Your task to perform on an android device: check battery use Image 0: 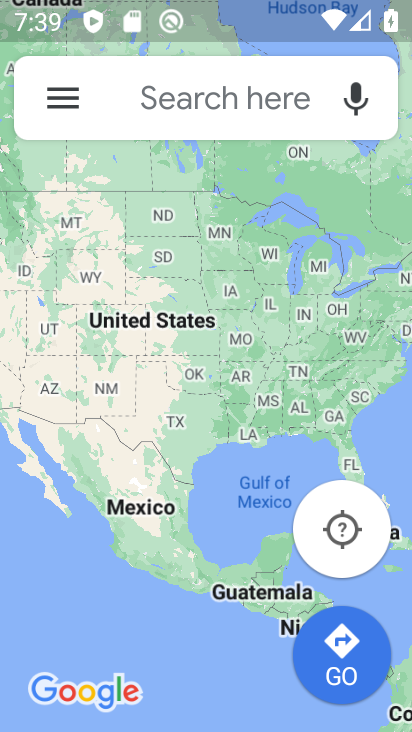
Step 0: press home button
Your task to perform on an android device: check battery use Image 1: 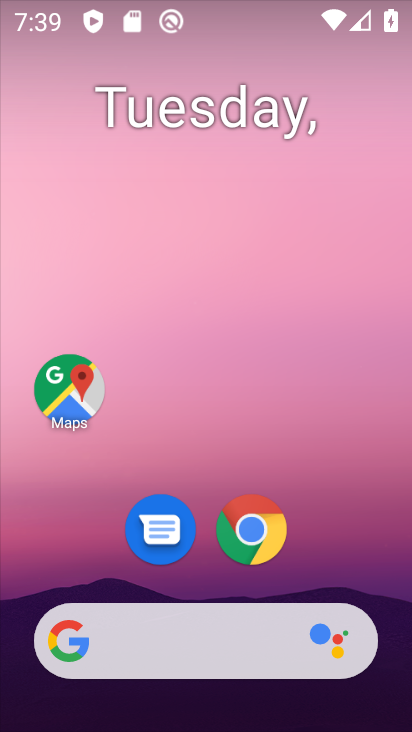
Step 1: drag from (250, 580) to (350, 18)
Your task to perform on an android device: check battery use Image 2: 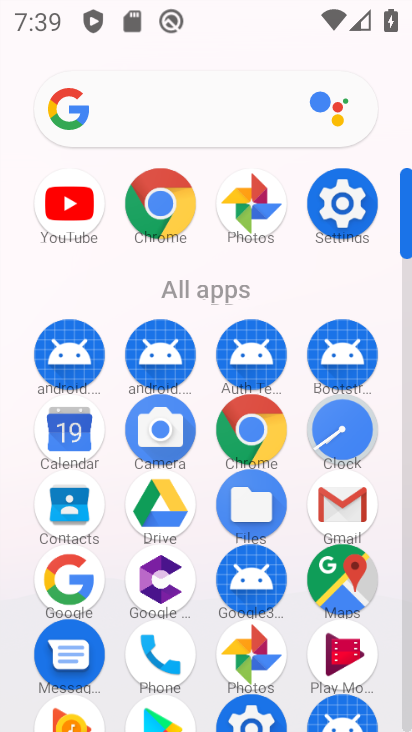
Step 2: click (345, 203)
Your task to perform on an android device: check battery use Image 3: 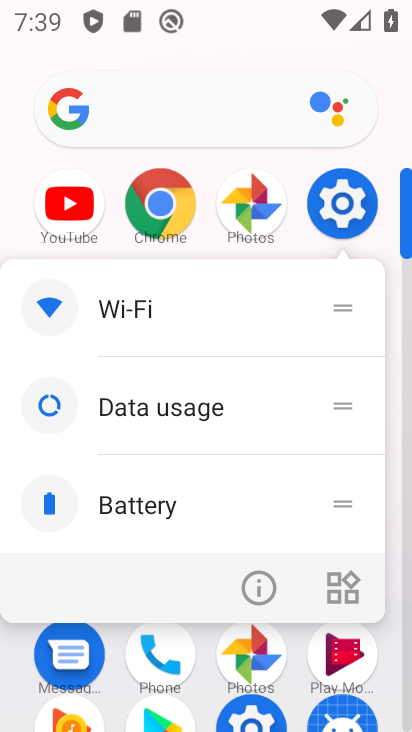
Step 3: click (354, 202)
Your task to perform on an android device: check battery use Image 4: 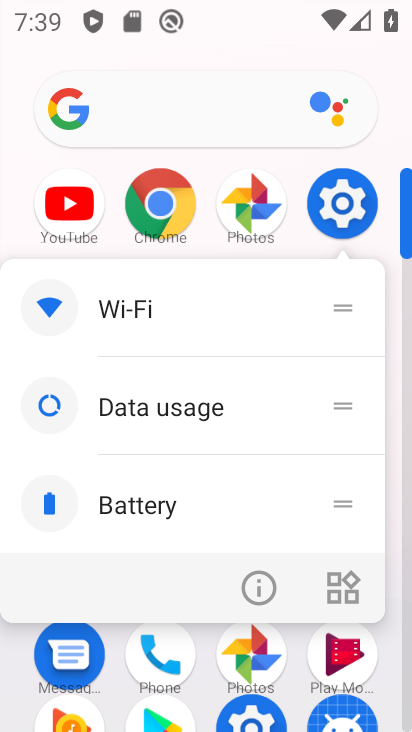
Step 4: click (345, 208)
Your task to perform on an android device: check battery use Image 5: 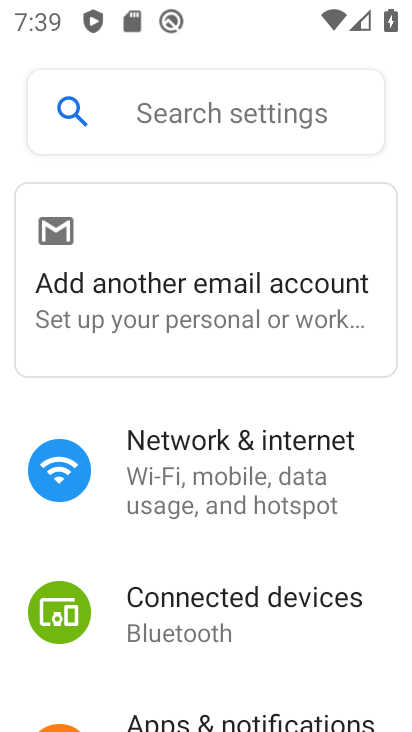
Step 5: drag from (223, 623) to (252, 243)
Your task to perform on an android device: check battery use Image 6: 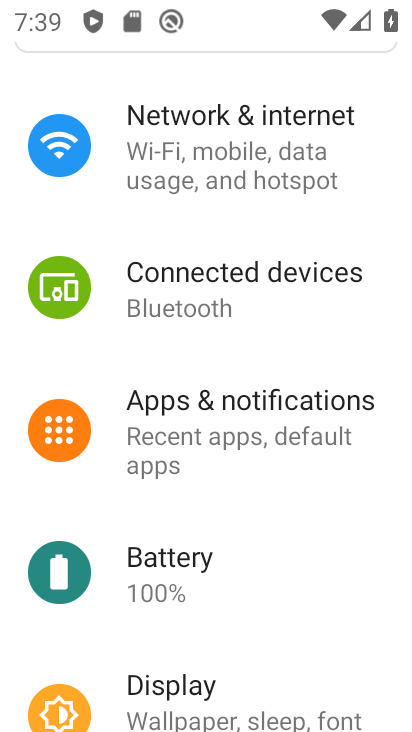
Step 6: click (192, 567)
Your task to perform on an android device: check battery use Image 7: 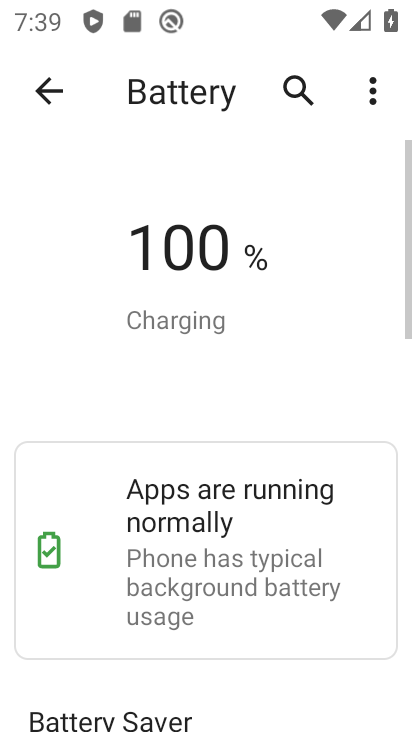
Step 7: click (367, 86)
Your task to perform on an android device: check battery use Image 8: 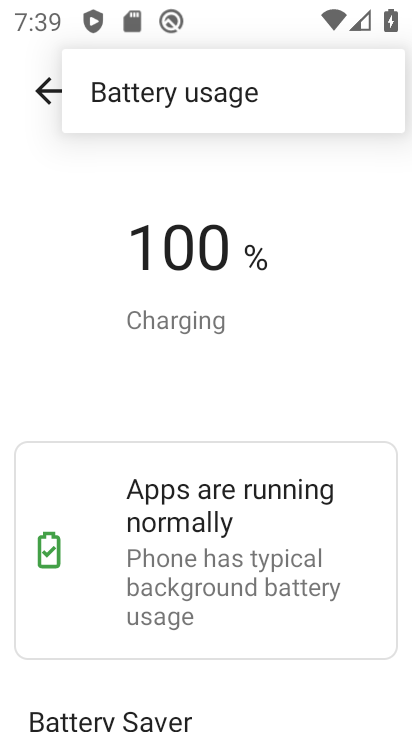
Step 8: click (198, 78)
Your task to perform on an android device: check battery use Image 9: 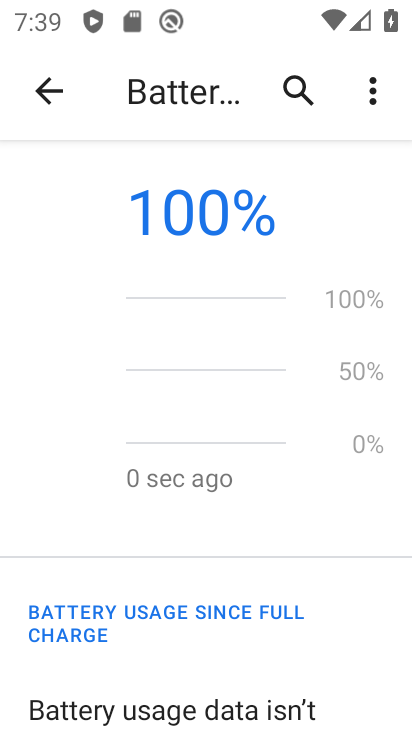
Step 9: task complete